Your task to perform on an android device: Go to sound settings Image 0: 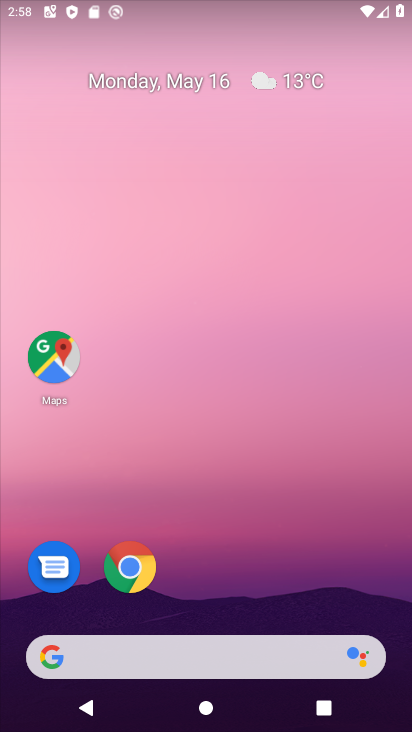
Step 0: drag from (237, 590) to (236, 201)
Your task to perform on an android device: Go to sound settings Image 1: 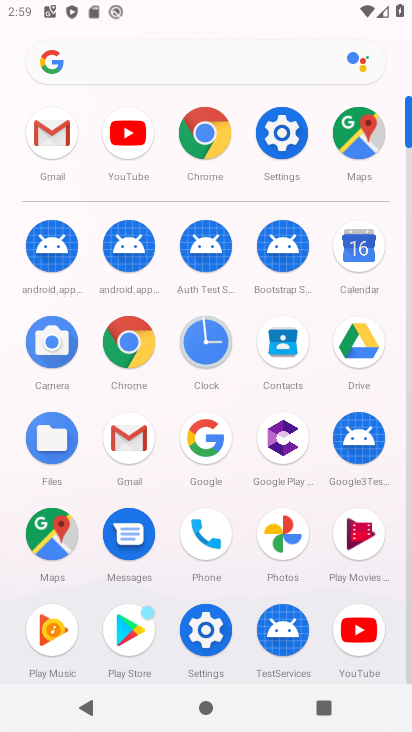
Step 1: click (295, 132)
Your task to perform on an android device: Go to sound settings Image 2: 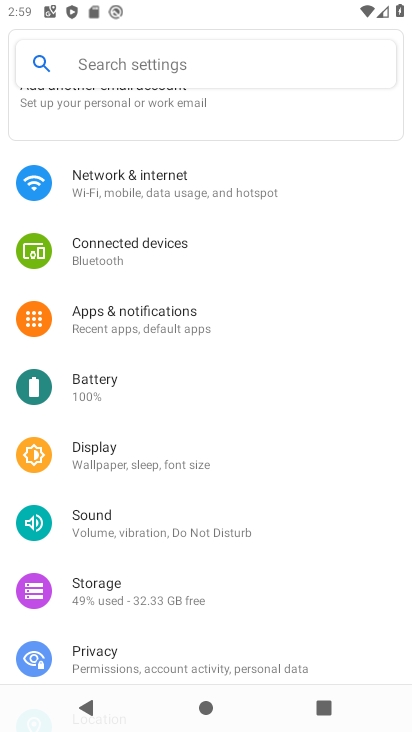
Step 2: click (90, 513)
Your task to perform on an android device: Go to sound settings Image 3: 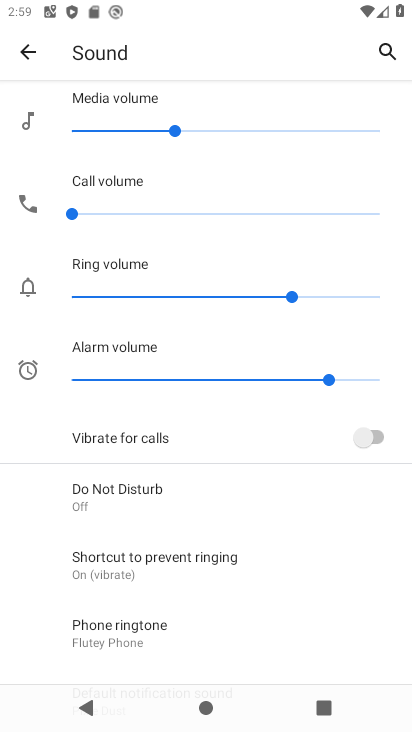
Step 3: task complete